Your task to perform on an android device: move a message to another label in the gmail app Image 0: 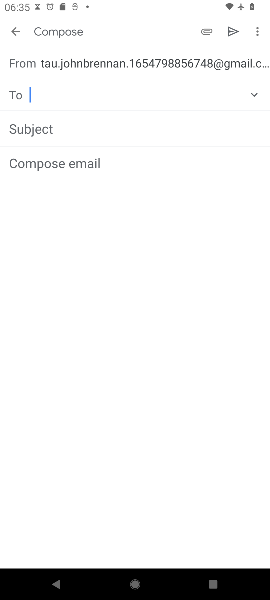
Step 0: press home button
Your task to perform on an android device: move a message to another label in the gmail app Image 1: 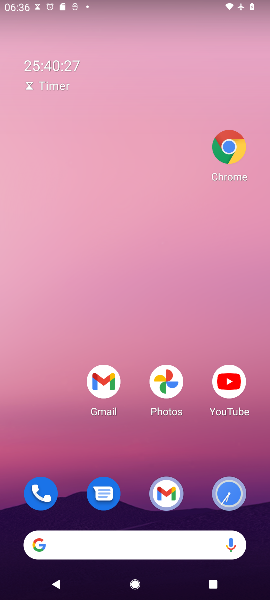
Step 1: click (102, 382)
Your task to perform on an android device: move a message to another label in the gmail app Image 2: 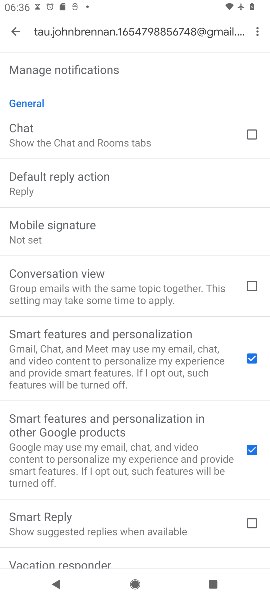
Step 2: press back button
Your task to perform on an android device: move a message to another label in the gmail app Image 3: 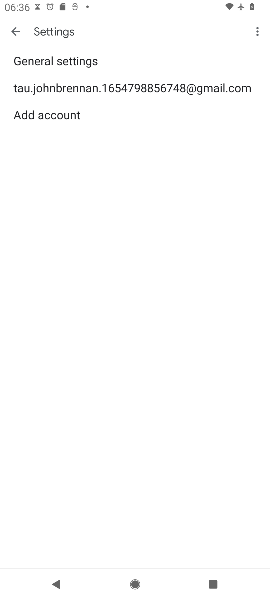
Step 3: press back button
Your task to perform on an android device: move a message to another label in the gmail app Image 4: 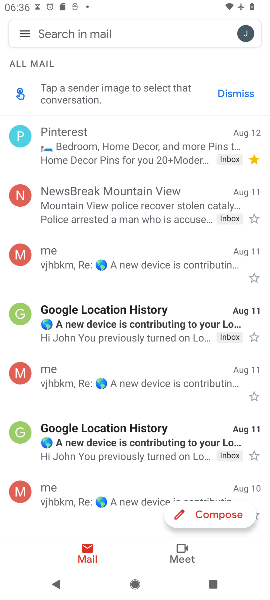
Step 4: click (89, 266)
Your task to perform on an android device: move a message to another label in the gmail app Image 5: 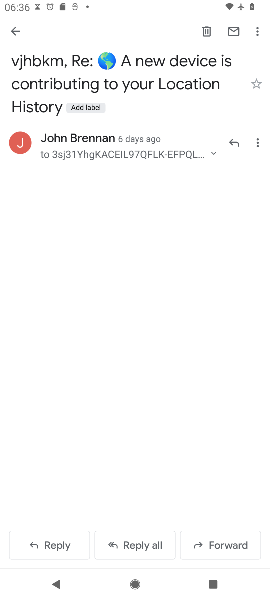
Step 5: click (255, 39)
Your task to perform on an android device: move a message to another label in the gmail app Image 6: 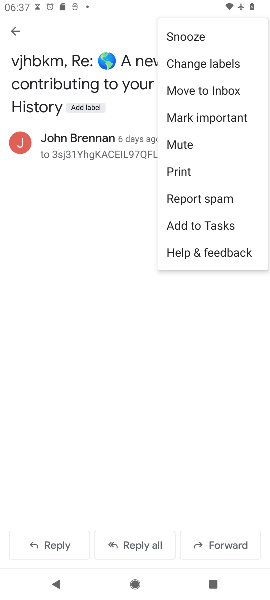
Step 6: click (214, 67)
Your task to perform on an android device: move a message to another label in the gmail app Image 7: 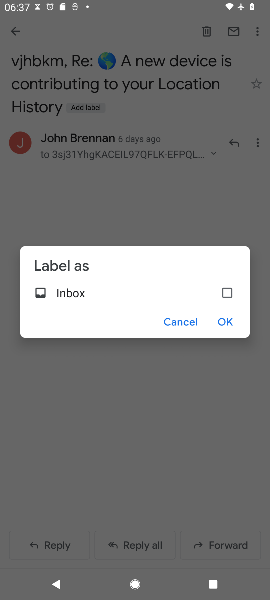
Step 7: click (223, 296)
Your task to perform on an android device: move a message to another label in the gmail app Image 8: 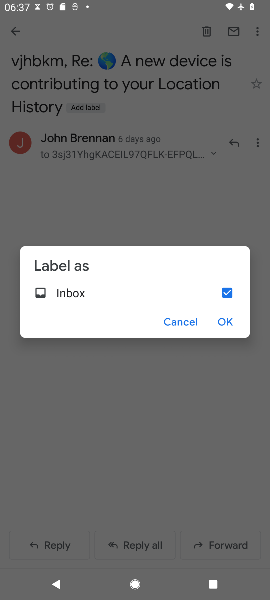
Step 8: click (220, 317)
Your task to perform on an android device: move a message to another label in the gmail app Image 9: 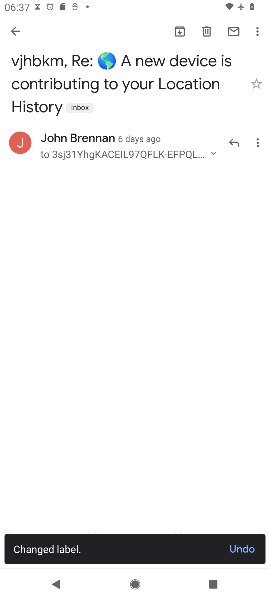
Step 9: task complete